Your task to perform on an android device: Open the stopwatch Image 0: 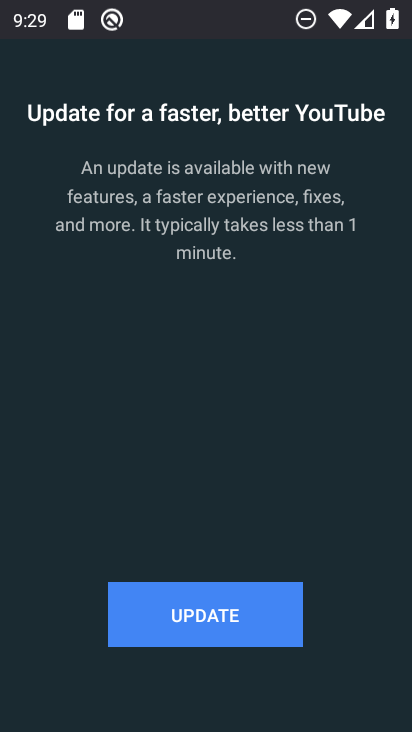
Step 0: press home button
Your task to perform on an android device: Open the stopwatch Image 1: 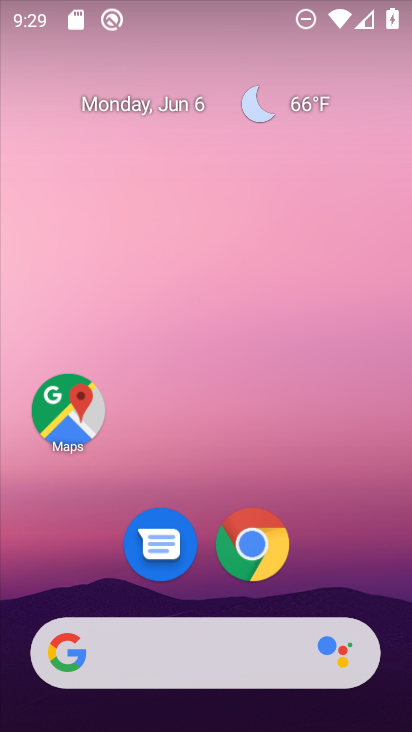
Step 1: drag from (207, 564) to (233, 159)
Your task to perform on an android device: Open the stopwatch Image 2: 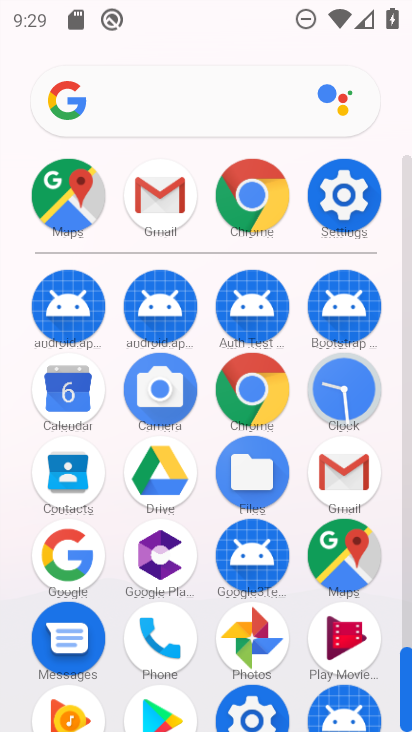
Step 2: click (341, 377)
Your task to perform on an android device: Open the stopwatch Image 3: 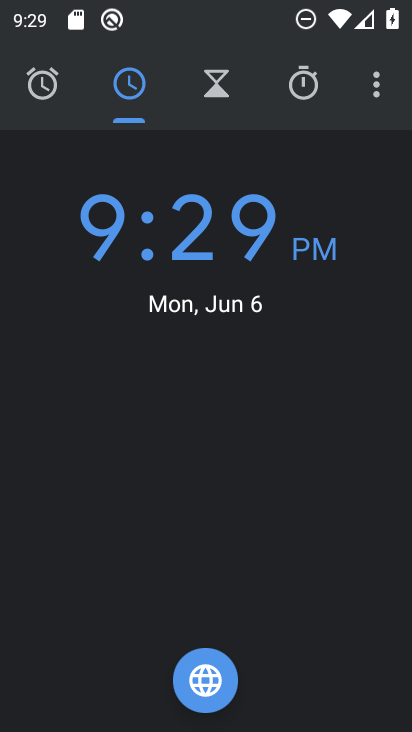
Step 3: click (308, 88)
Your task to perform on an android device: Open the stopwatch Image 4: 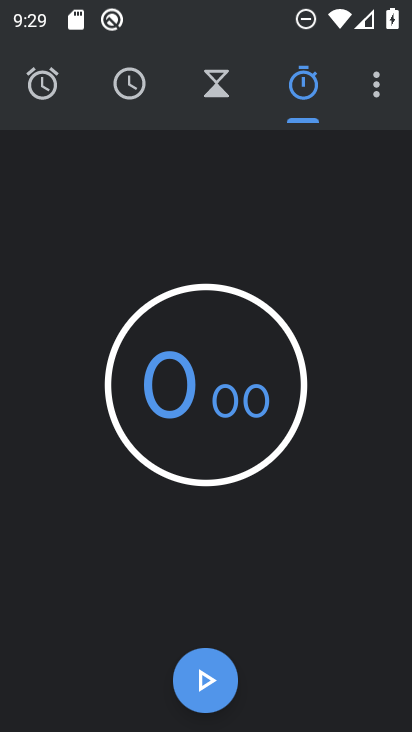
Step 4: task complete